Your task to perform on an android device: check battery use Image 0: 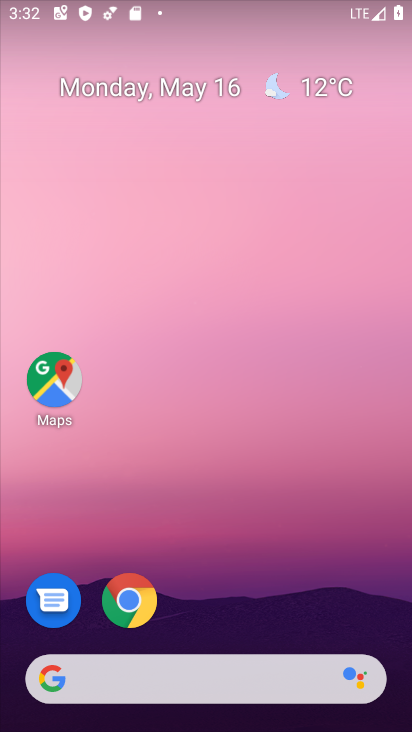
Step 0: drag from (292, 606) to (322, 79)
Your task to perform on an android device: check battery use Image 1: 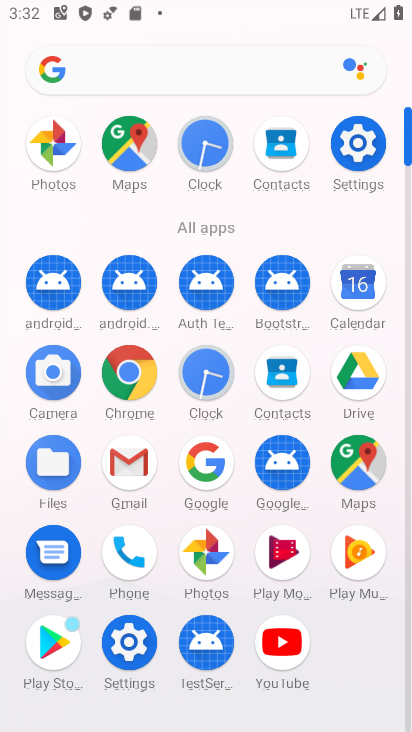
Step 1: click (368, 154)
Your task to perform on an android device: check battery use Image 2: 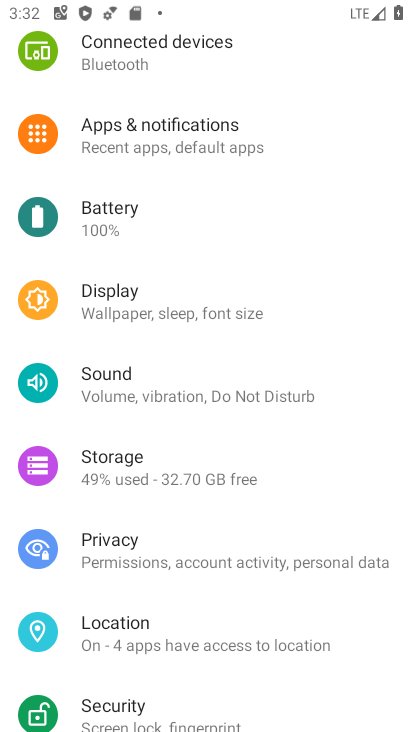
Step 2: click (142, 233)
Your task to perform on an android device: check battery use Image 3: 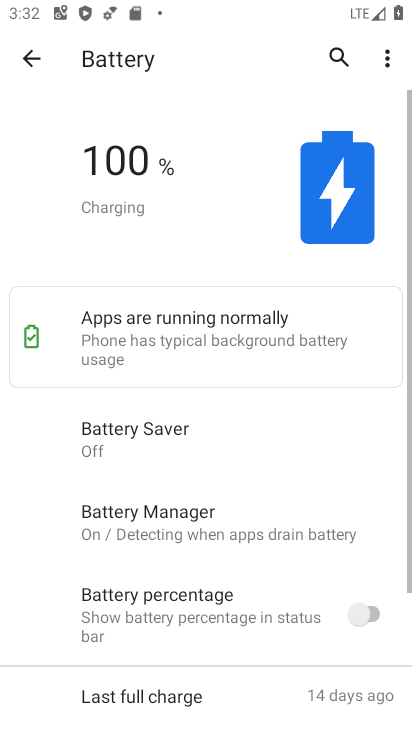
Step 3: click (389, 61)
Your task to perform on an android device: check battery use Image 4: 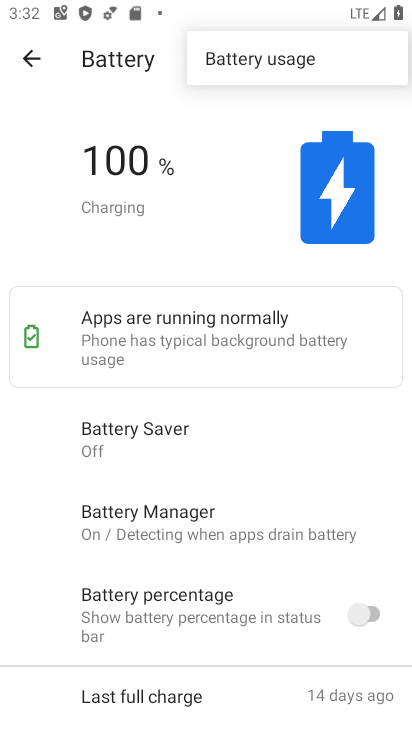
Step 4: click (329, 59)
Your task to perform on an android device: check battery use Image 5: 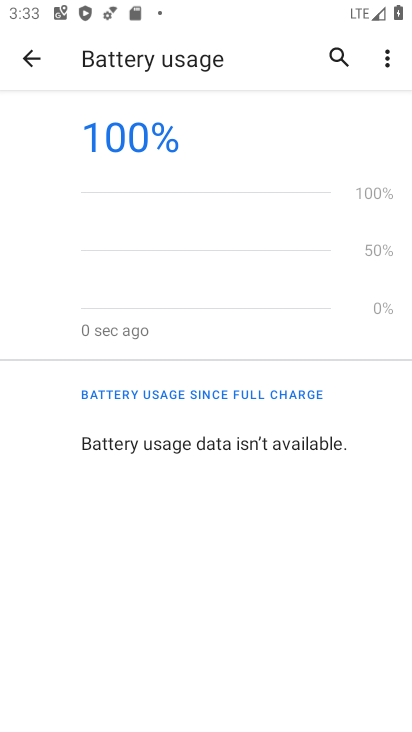
Step 5: task complete